Your task to perform on an android device: turn on sleep mode Image 0: 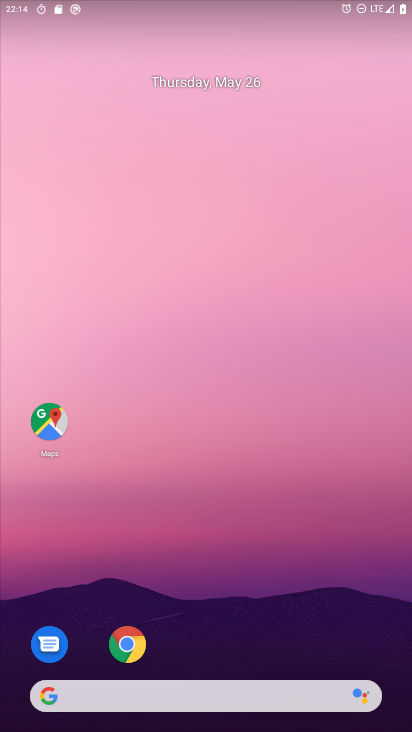
Step 0: drag from (194, 653) to (401, 330)
Your task to perform on an android device: turn on sleep mode Image 1: 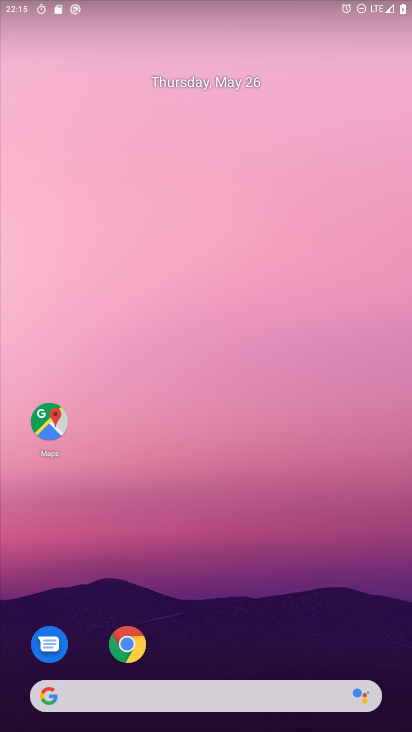
Step 1: drag from (232, 509) to (273, 206)
Your task to perform on an android device: turn on sleep mode Image 2: 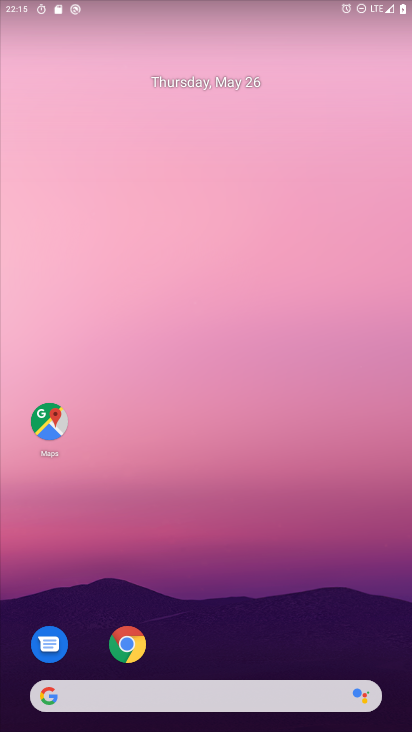
Step 2: drag from (204, 646) to (247, 87)
Your task to perform on an android device: turn on sleep mode Image 3: 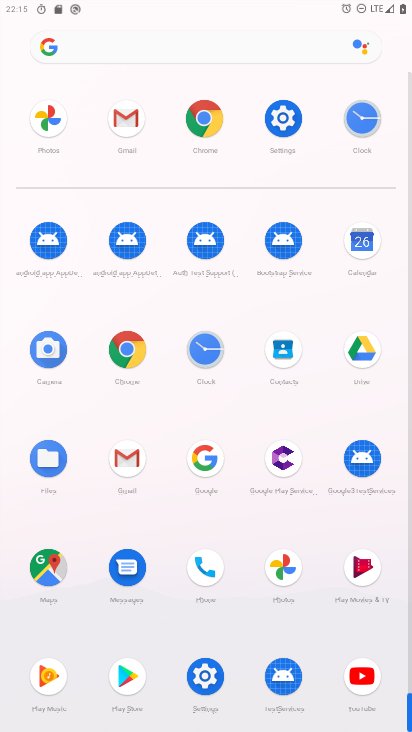
Step 3: click (285, 109)
Your task to perform on an android device: turn on sleep mode Image 4: 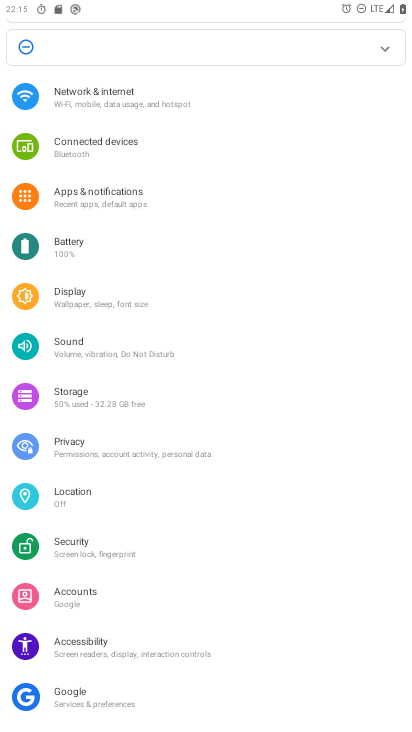
Step 4: click (100, 289)
Your task to perform on an android device: turn on sleep mode Image 5: 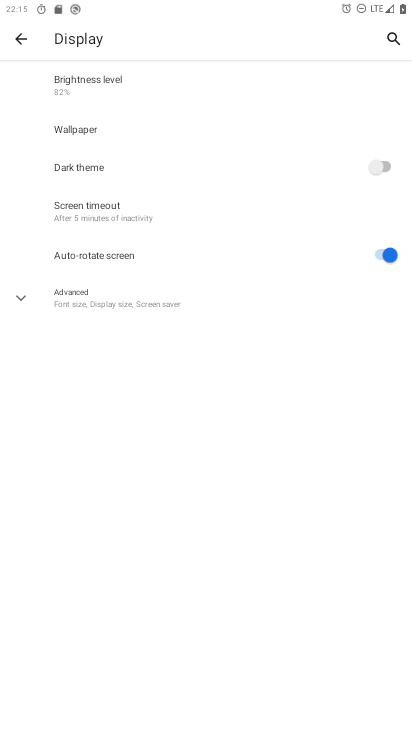
Step 5: click (168, 201)
Your task to perform on an android device: turn on sleep mode Image 6: 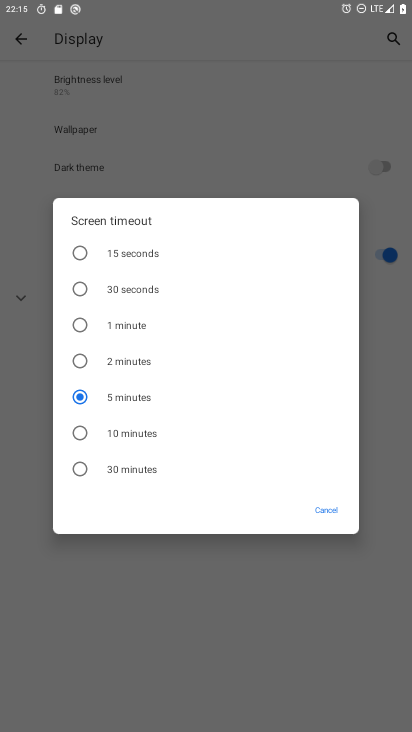
Step 6: task complete